Your task to perform on an android device: Search for seafood restaurants on Google Maps Image 0: 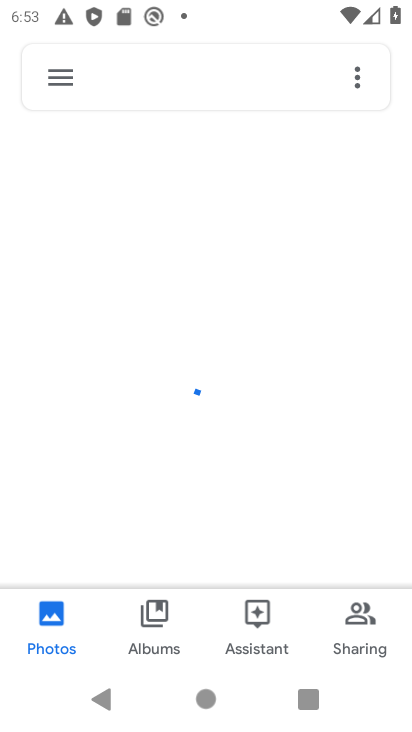
Step 0: press home button
Your task to perform on an android device: Search for seafood restaurants on Google Maps Image 1: 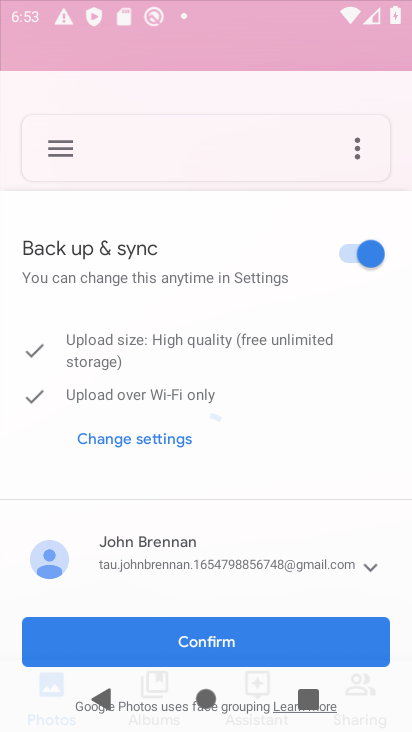
Step 1: drag from (399, 641) to (201, 58)
Your task to perform on an android device: Search for seafood restaurants on Google Maps Image 2: 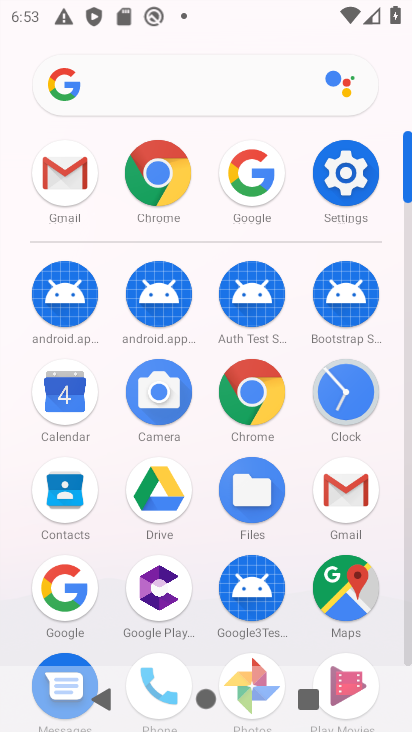
Step 2: click (329, 605)
Your task to perform on an android device: Search for seafood restaurants on Google Maps Image 3: 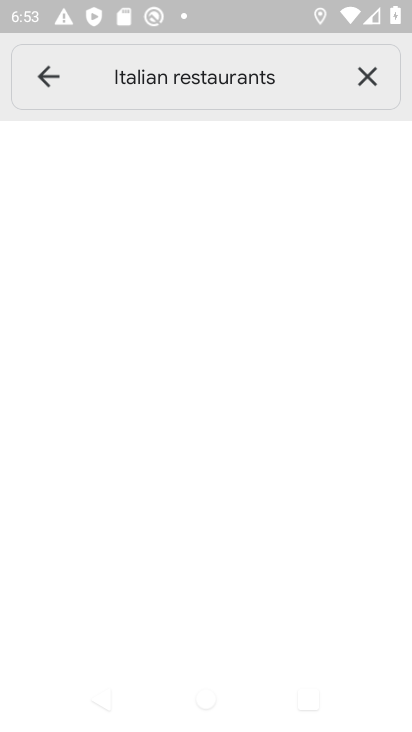
Step 3: click (370, 72)
Your task to perform on an android device: Search for seafood restaurants on Google Maps Image 4: 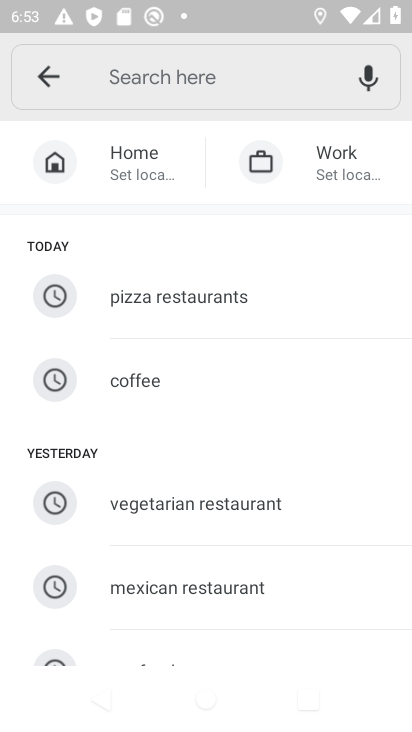
Step 4: drag from (220, 571) to (181, 184)
Your task to perform on an android device: Search for seafood restaurants on Google Maps Image 5: 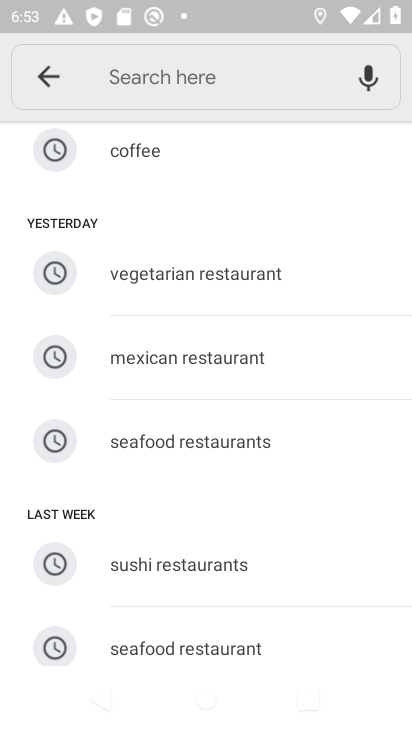
Step 5: click (193, 435)
Your task to perform on an android device: Search for seafood restaurants on Google Maps Image 6: 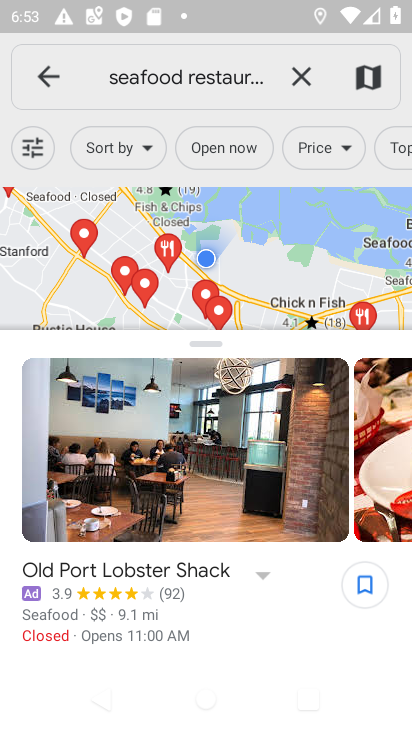
Step 6: task complete